Your task to perform on an android device: turn on location history Image 0: 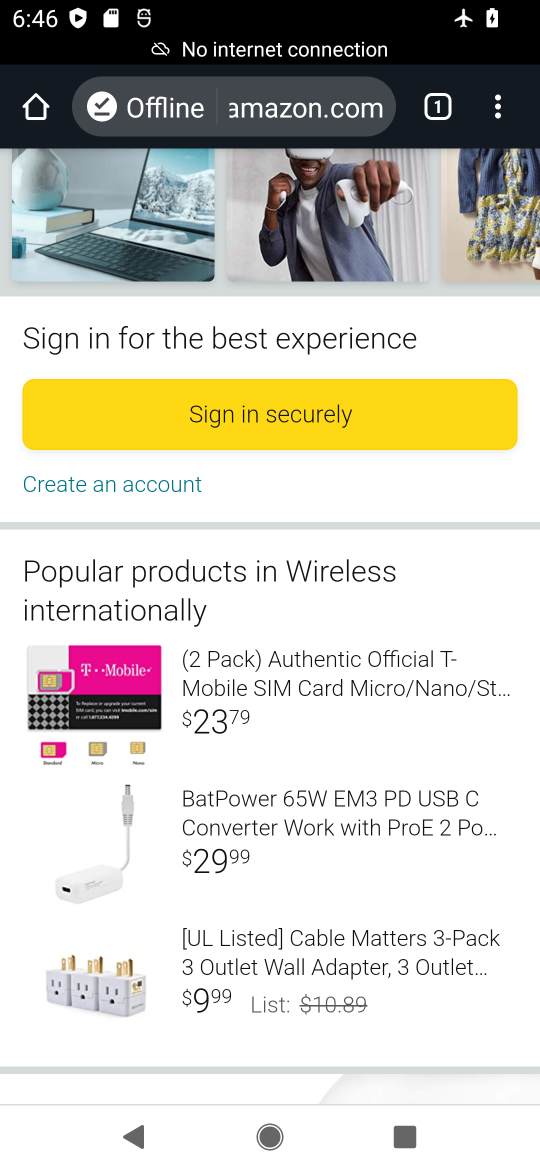
Step 0: press home button
Your task to perform on an android device: turn on location history Image 1: 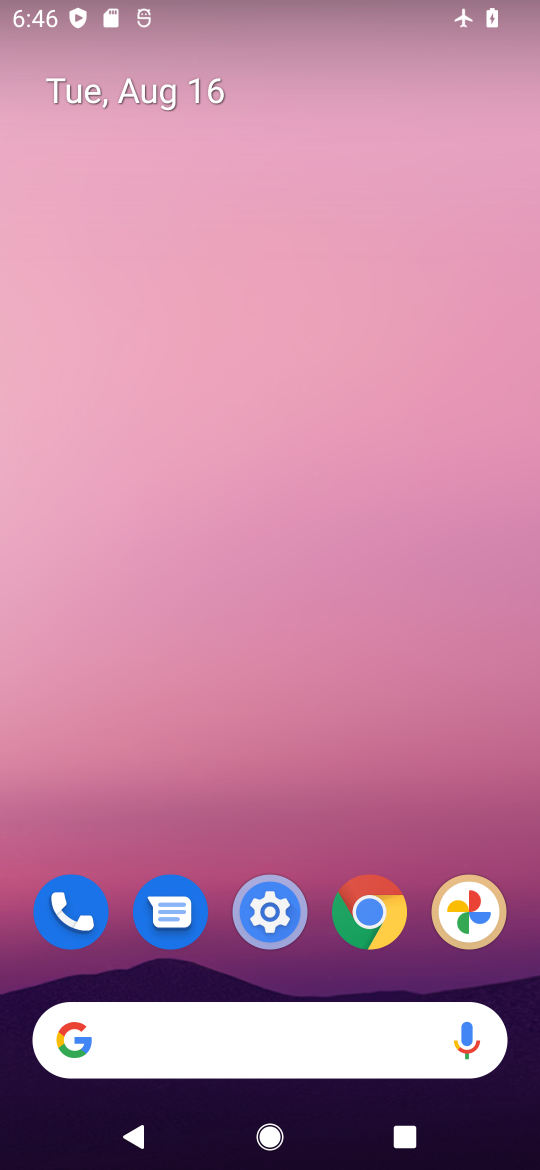
Step 1: drag from (346, 987) to (290, 223)
Your task to perform on an android device: turn on location history Image 2: 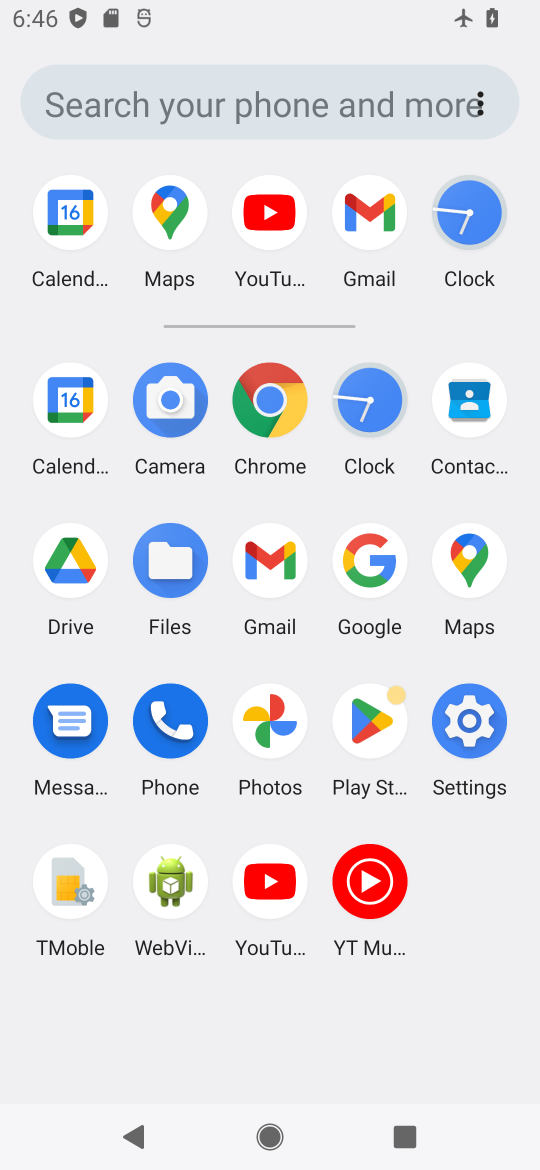
Step 2: click (470, 557)
Your task to perform on an android device: turn on location history Image 3: 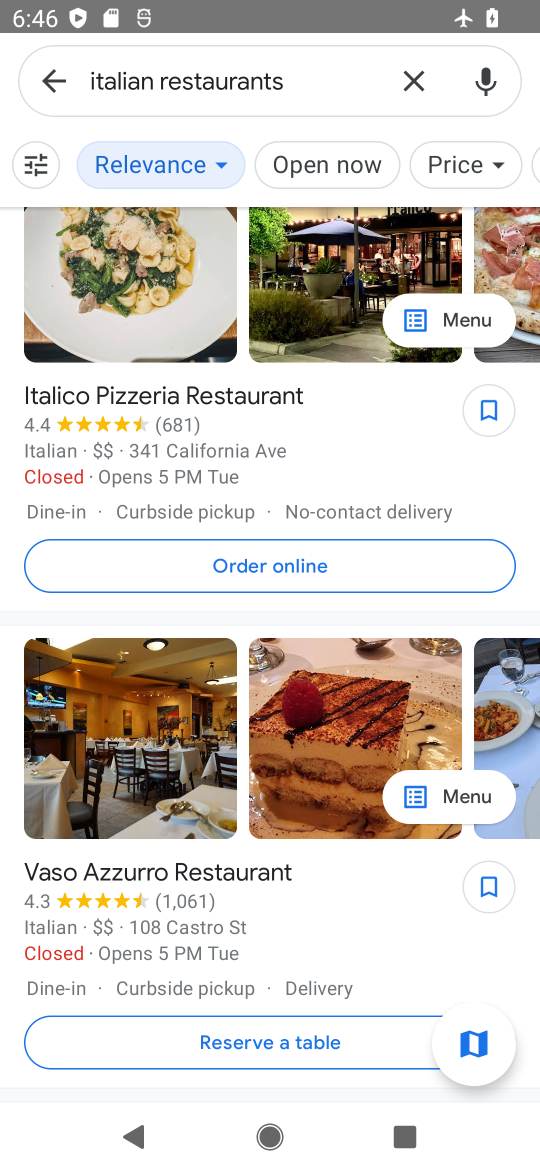
Step 3: click (416, 80)
Your task to perform on an android device: turn on location history Image 4: 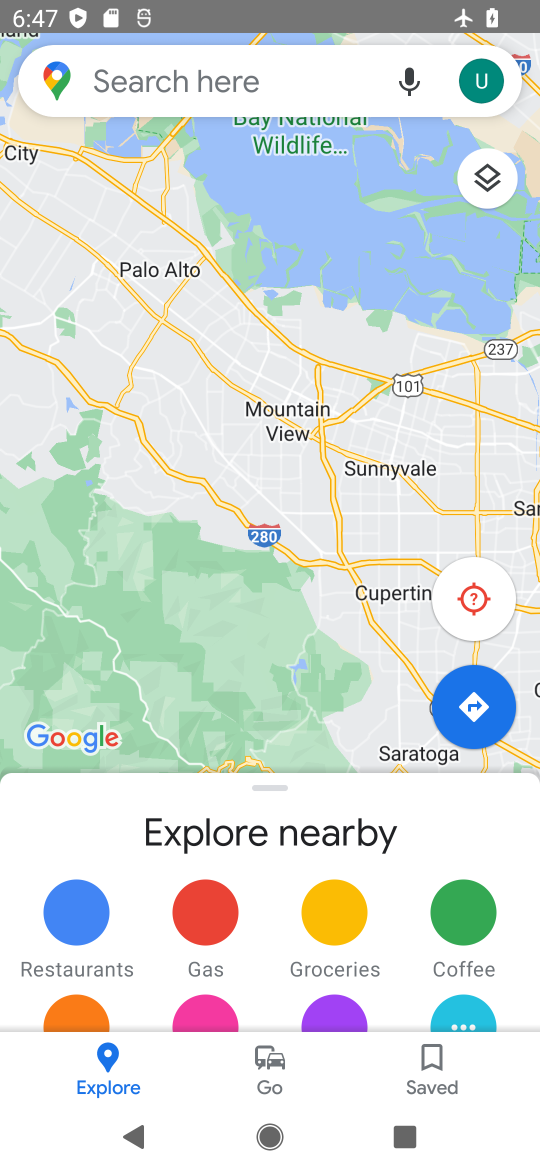
Step 4: click (482, 85)
Your task to perform on an android device: turn on location history Image 5: 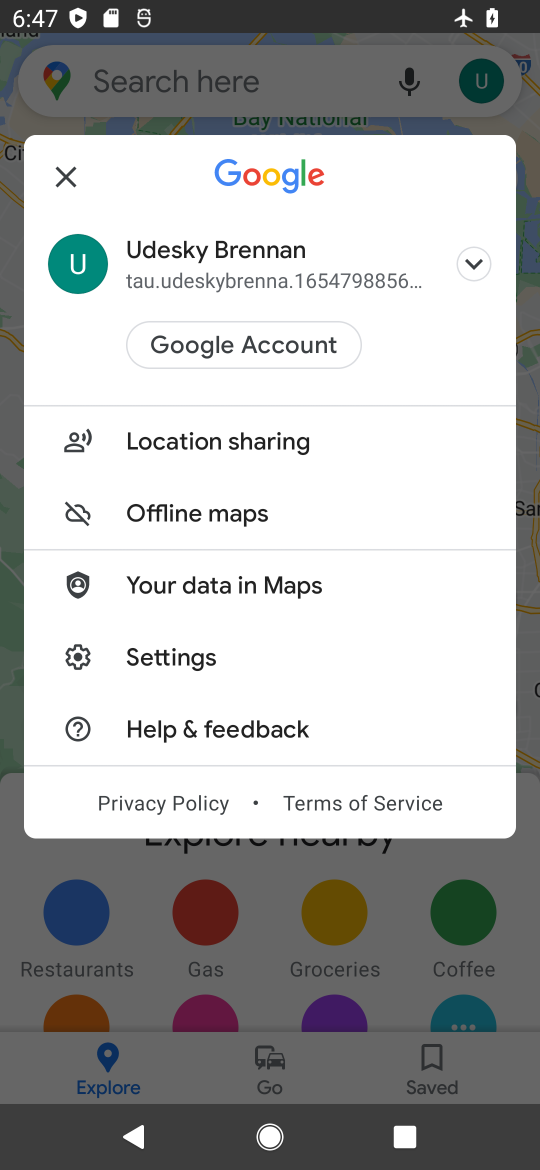
Step 5: click (146, 654)
Your task to perform on an android device: turn on location history Image 6: 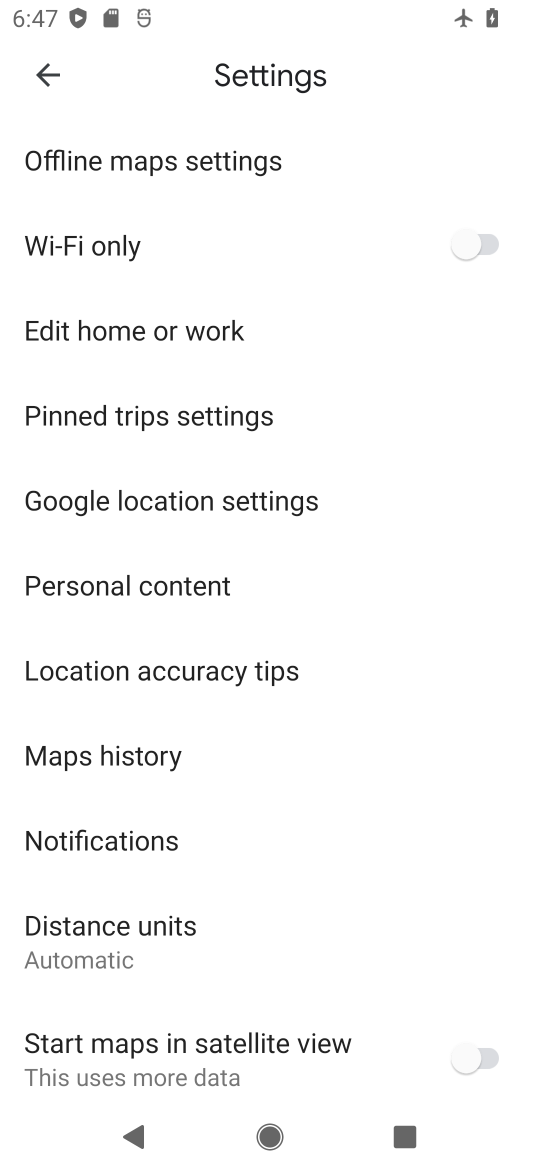
Step 6: click (102, 584)
Your task to perform on an android device: turn on location history Image 7: 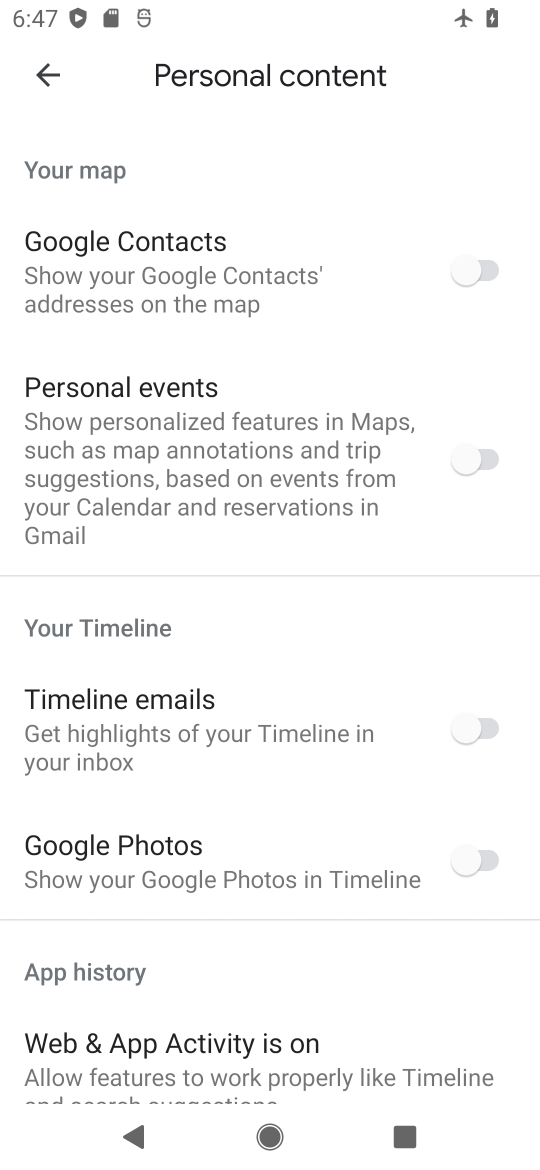
Step 7: drag from (334, 938) to (274, 409)
Your task to perform on an android device: turn on location history Image 8: 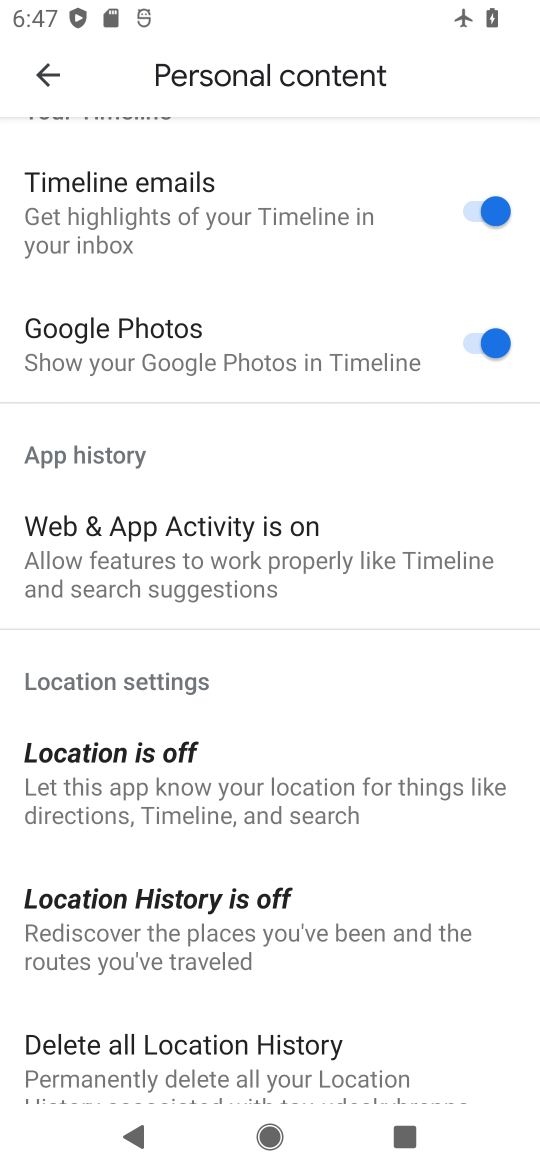
Step 8: click (193, 908)
Your task to perform on an android device: turn on location history Image 9: 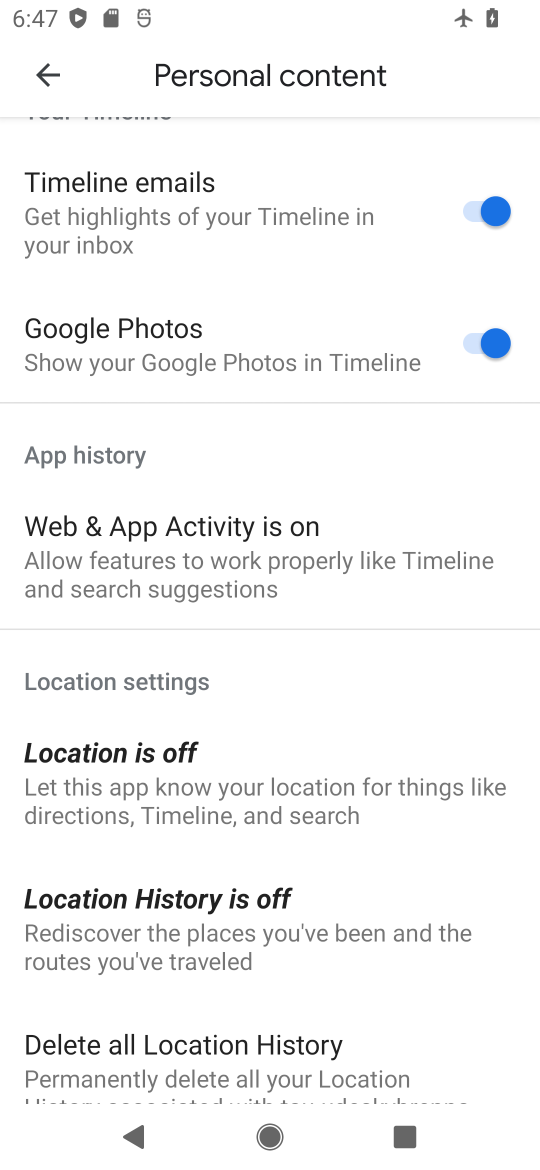
Step 9: click (203, 894)
Your task to perform on an android device: turn on location history Image 10: 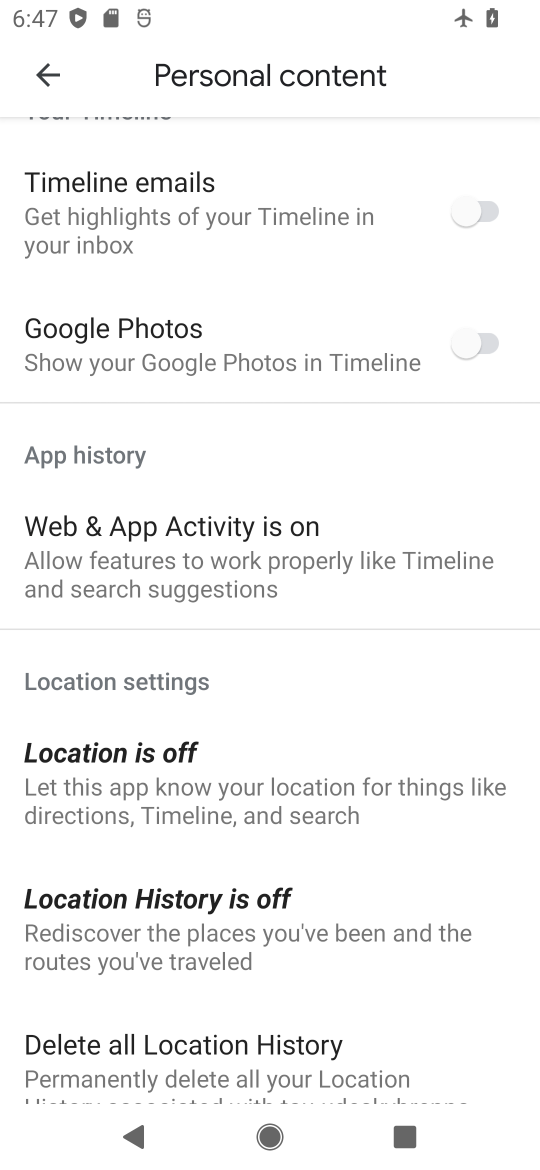
Step 10: click (203, 894)
Your task to perform on an android device: turn on location history Image 11: 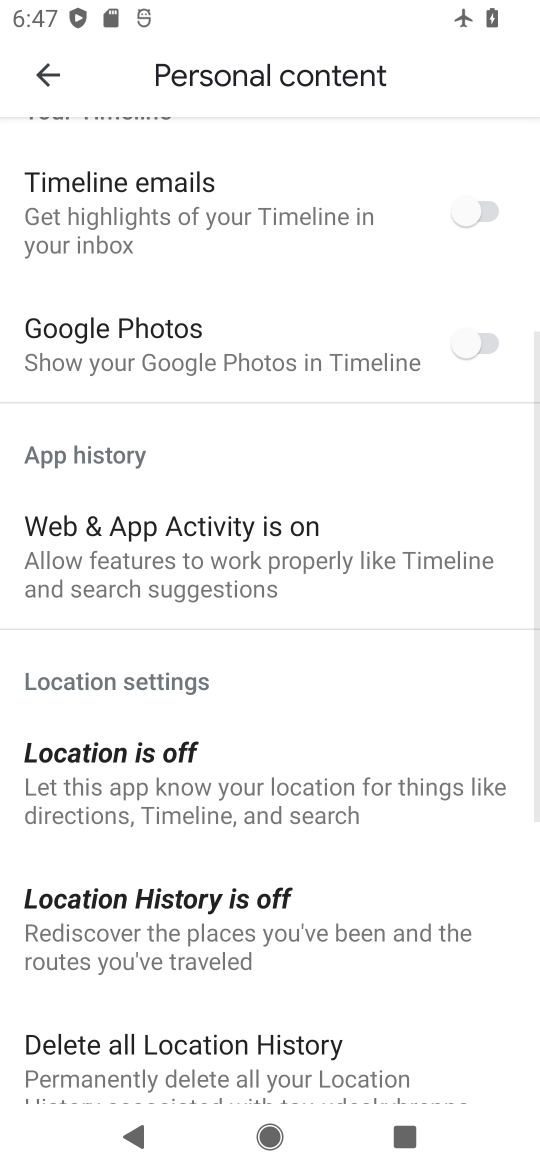
Step 11: task complete